Your task to perform on an android device: Open ESPN.com Image 0: 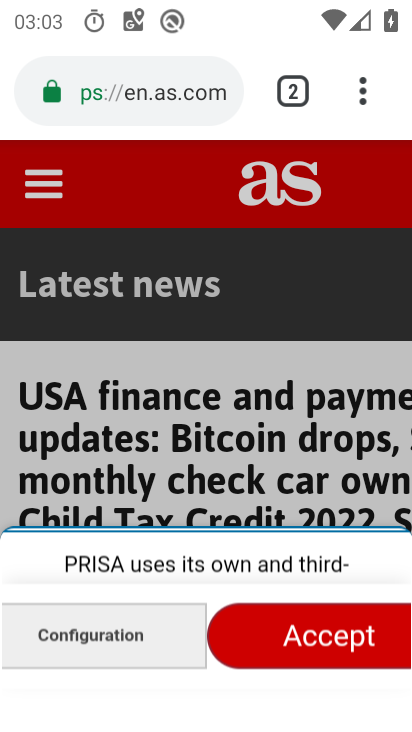
Step 0: press home button
Your task to perform on an android device: Open ESPN.com Image 1: 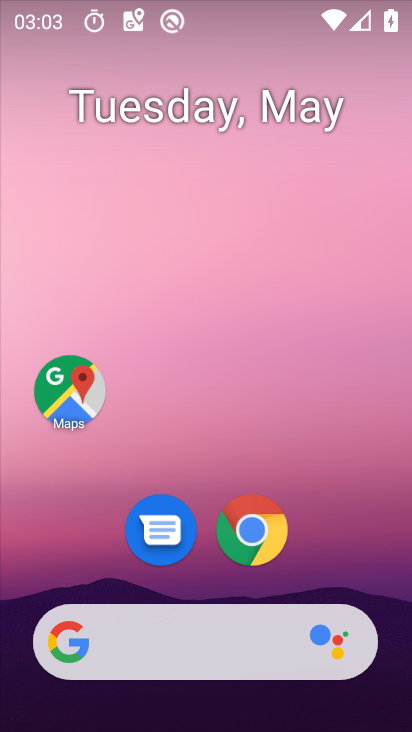
Step 1: click (251, 516)
Your task to perform on an android device: Open ESPN.com Image 2: 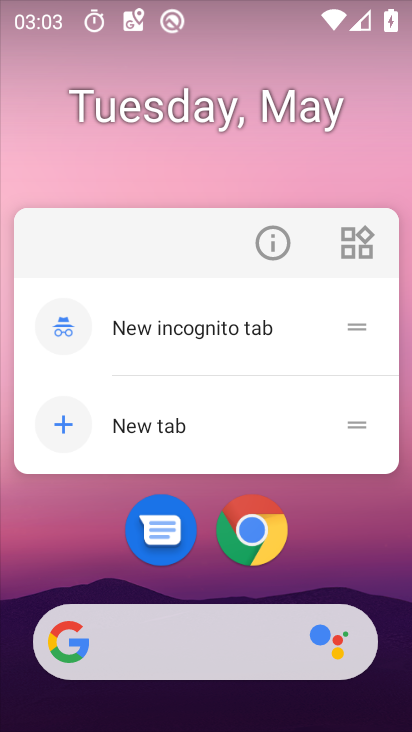
Step 2: click (253, 528)
Your task to perform on an android device: Open ESPN.com Image 3: 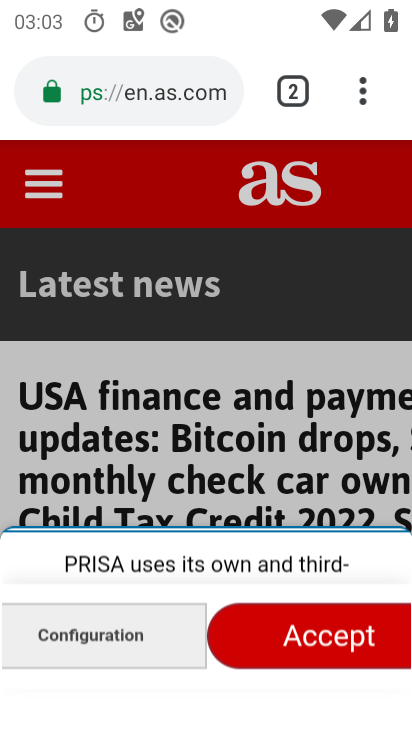
Step 3: click (294, 77)
Your task to perform on an android device: Open ESPN.com Image 4: 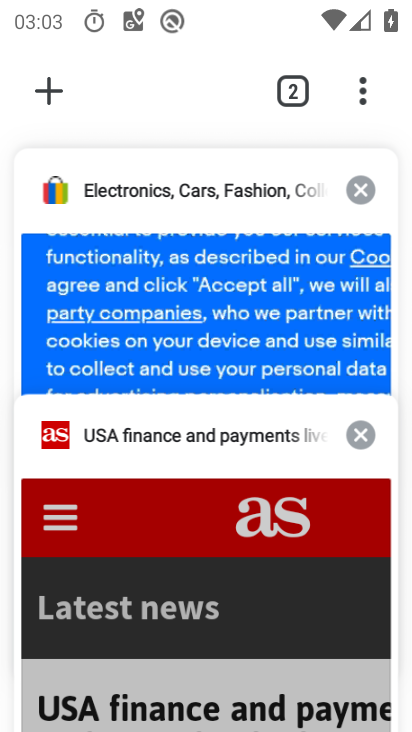
Step 4: click (357, 199)
Your task to perform on an android device: Open ESPN.com Image 5: 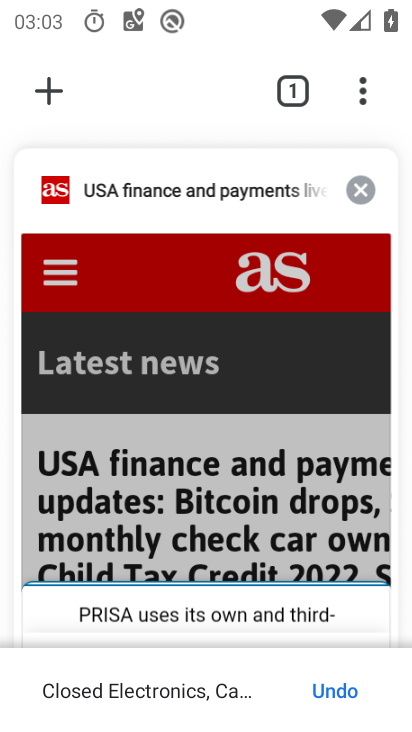
Step 5: click (366, 195)
Your task to perform on an android device: Open ESPN.com Image 6: 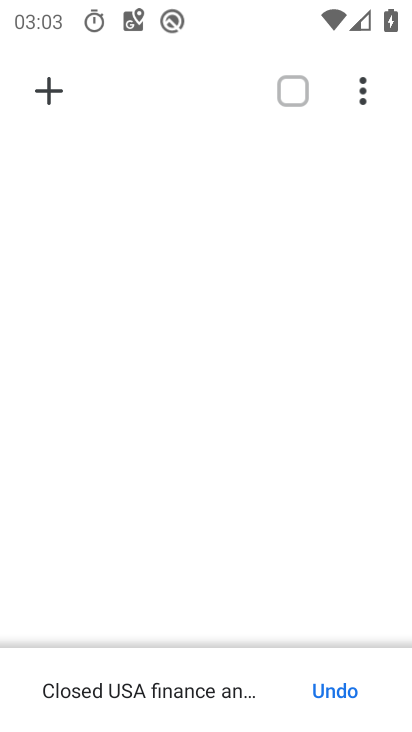
Step 6: click (47, 86)
Your task to perform on an android device: Open ESPN.com Image 7: 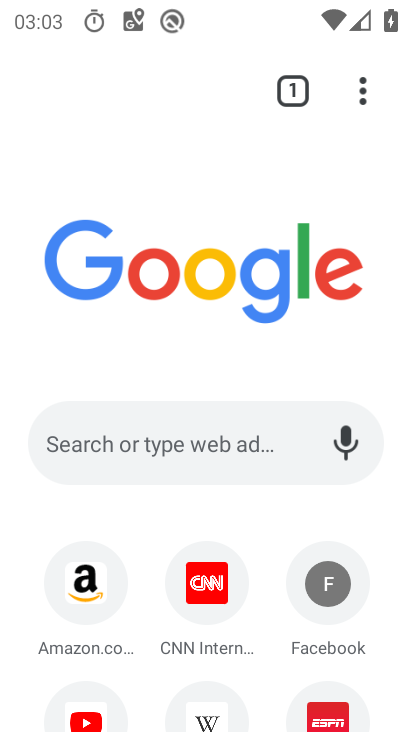
Step 7: click (316, 704)
Your task to perform on an android device: Open ESPN.com Image 8: 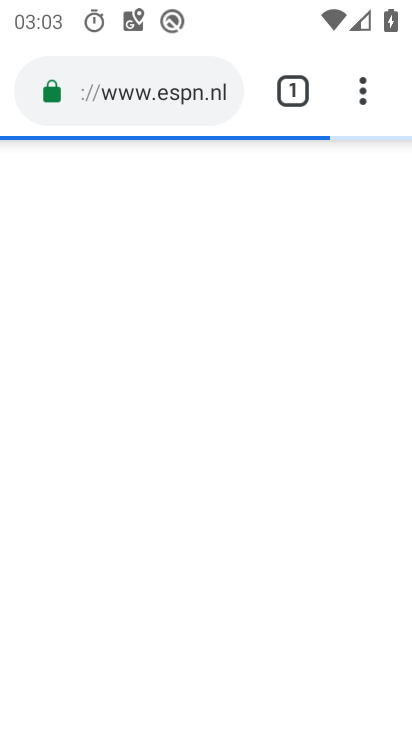
Step 8: task complete